Your task to perform on an android device: Go to display settings Image 0: 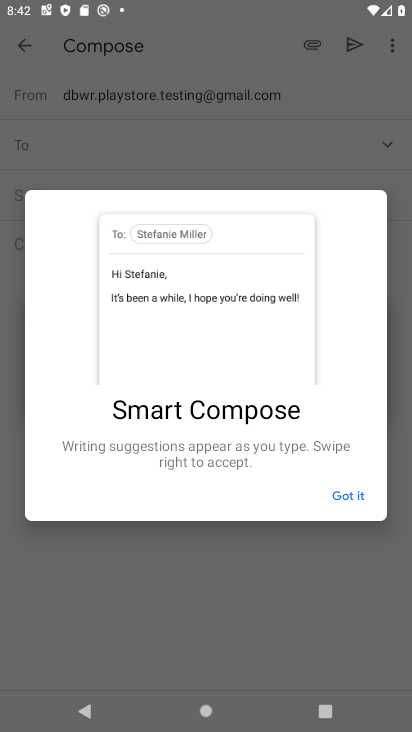
Step 0: press home button
Your task to perform on an android device: Go to display settings Image 1: 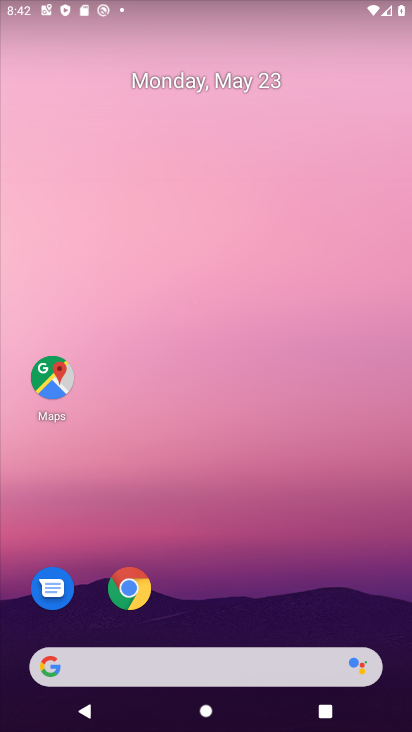
Step 1: drag from (406, 706) to (371, 236)
Your task to perform on an android device: Go to display settings Image 2: 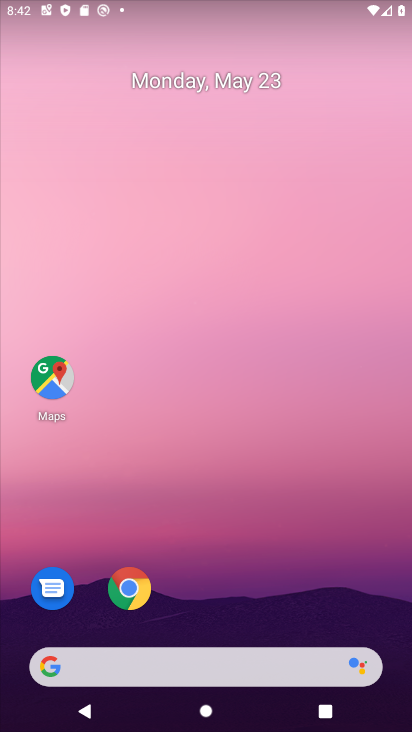
Step 2: drag from (405, 702) to (372, 161)
Your task to perform on an android device: Go to display settings Image 3: 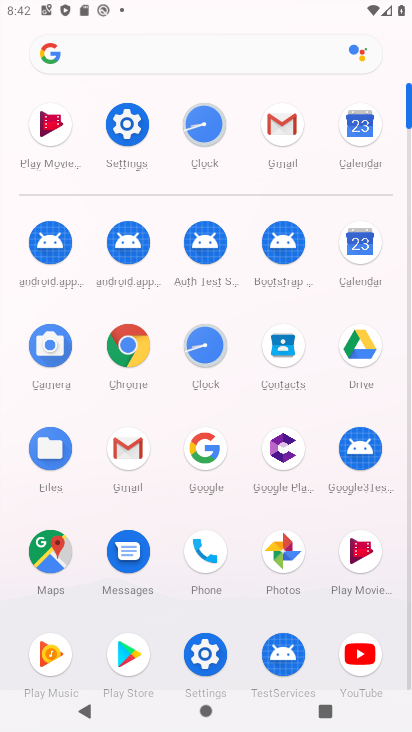
Step 3: click (123, 138)
Your task to perform on an android device: Go to display settings Image 4: 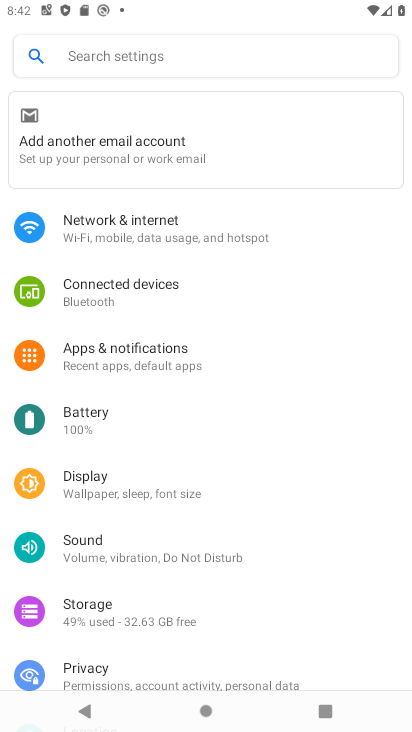
Step 4: click (98, 478)
Your task to perform on an android device: Go to display settings Image 5: 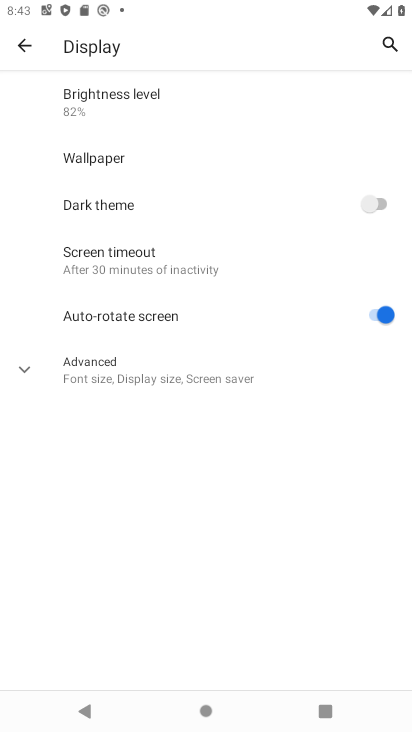
Step 5: task complete